Your task to perform on an android device: add a contact in the contacts app Image 0: 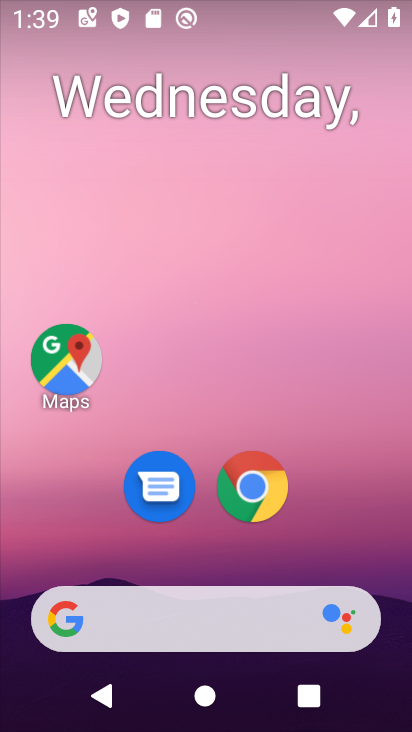
Step 0: drag from (203, 552) to (203, 71)
Your task to perform on an android device: add a contact in the contacts app Image 1: 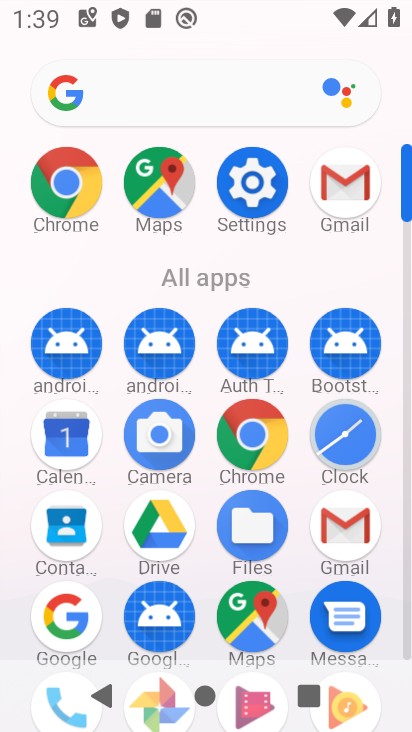
Step 1: click (46, 532)
Your task to perform on an android device: add a contact in the contacts app Image 2: 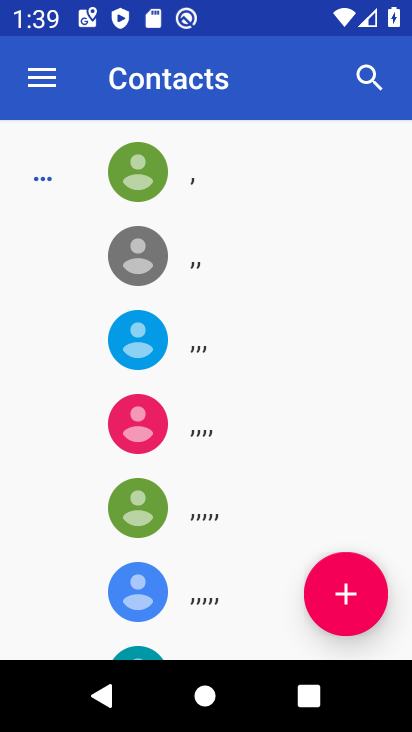
Step 2: click (359, 594)
Your task to perform on an android device: add a contact in the contacts app Image 3: 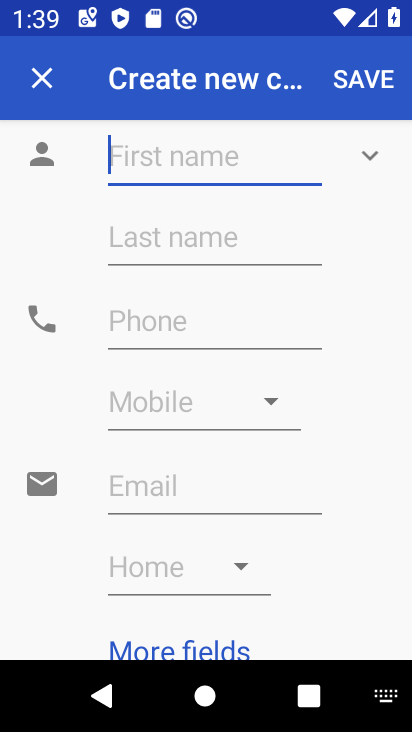
Step 3: click (180, 155)
Your task to perform on an android device: add a contact in the contacts app Image 4: 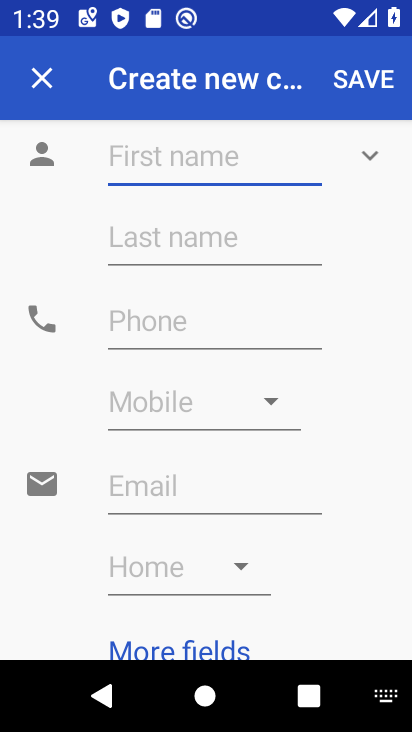
Step 4: type "fbfb"
Your task to perform on an android device: add a contact in the contacts app Image 5: 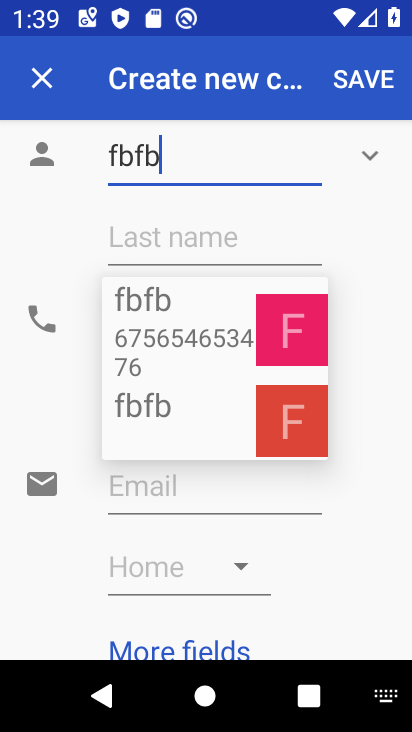
Step 5: click (148, 328)
Your task to perform on an android device: add a contact in the contacts app Image 6: 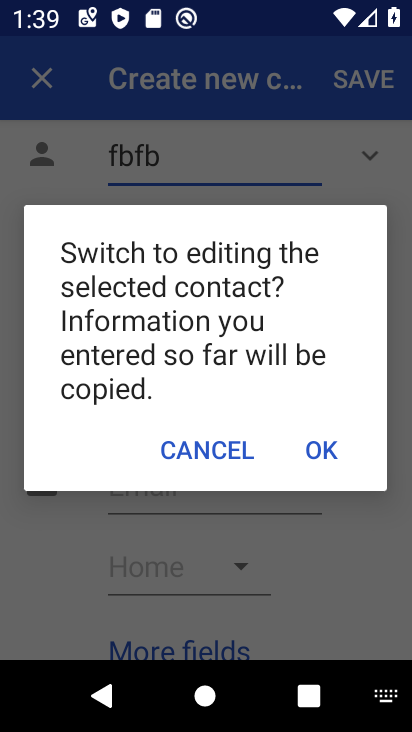
Step 6: click (320, 441)
Your task to perform on an android device: add a contact in the contacts app Image 7: 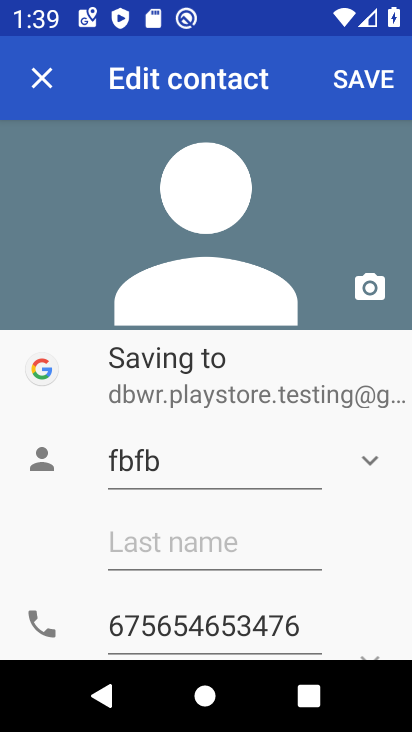
Step 7: click (366, 67)
Your task to perform on an android device: add a contact in the contacts app Image 8: 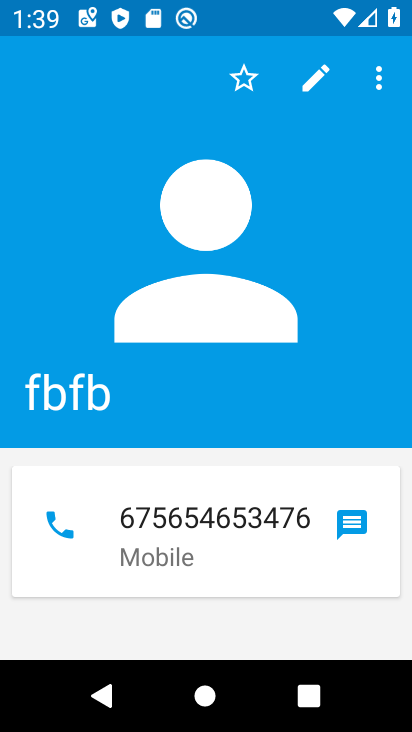
Step 8: task complete